Your task to perform on an android device: uninstall "Google Duo" Image 0: 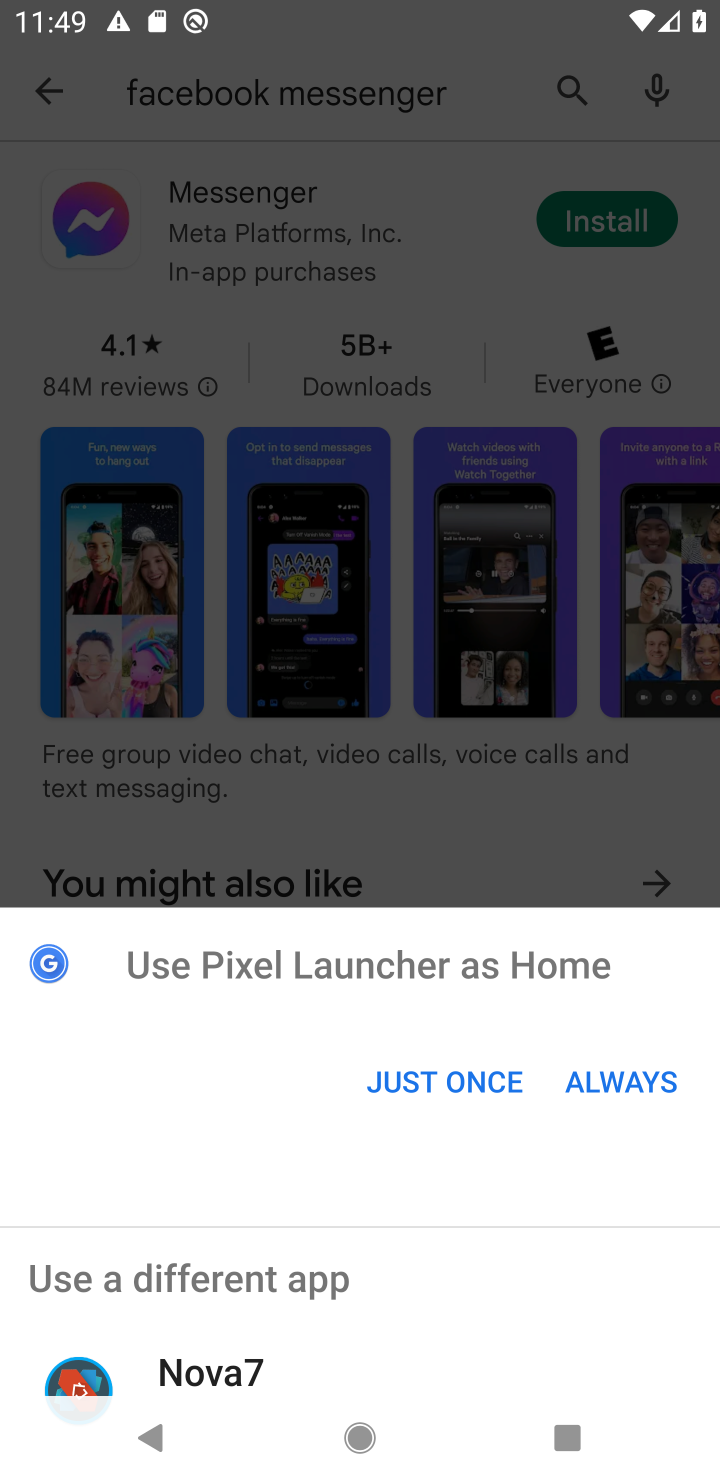
Step 0: press home button
Your task to perform on an android device: uninstall "Google Duo" Image 1: 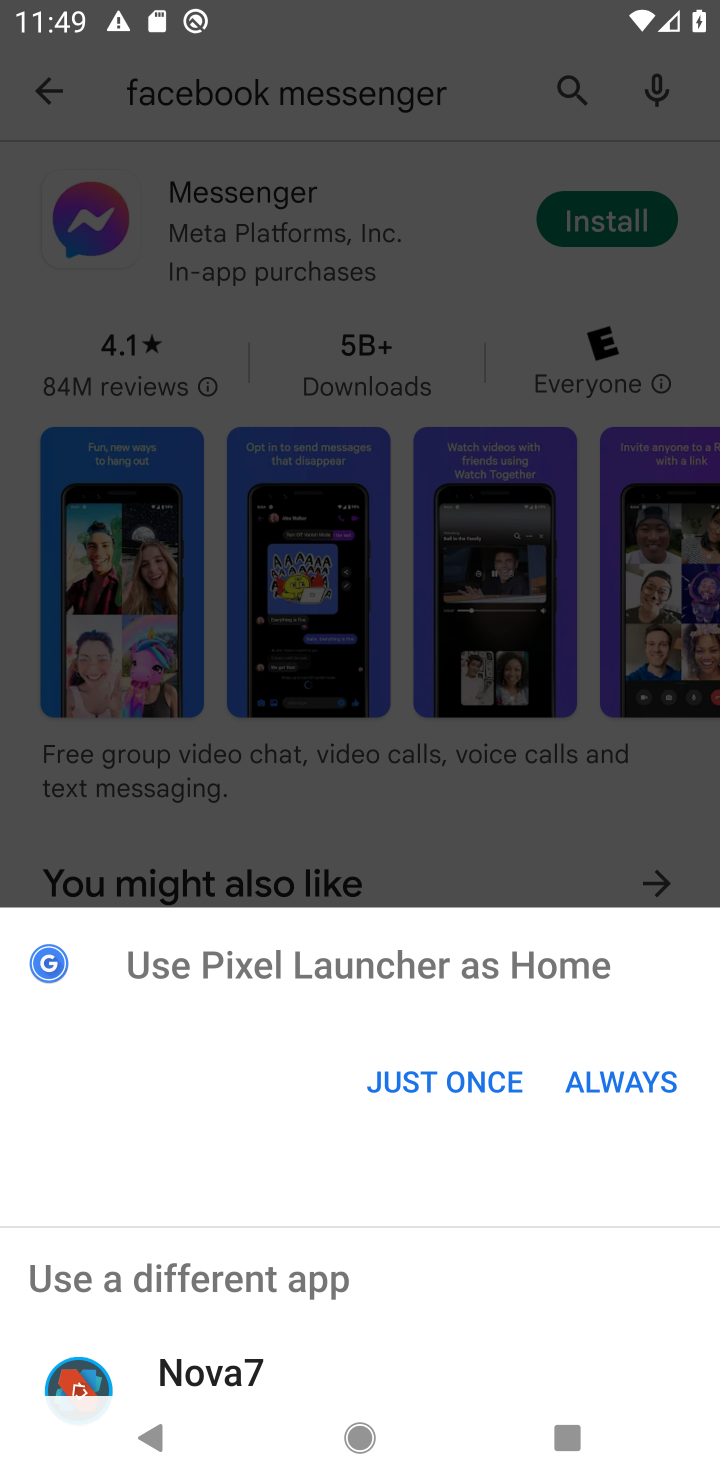
Step 1: press back button
Your task to perform on an android device: uninstall "Google Duo" Image 2: 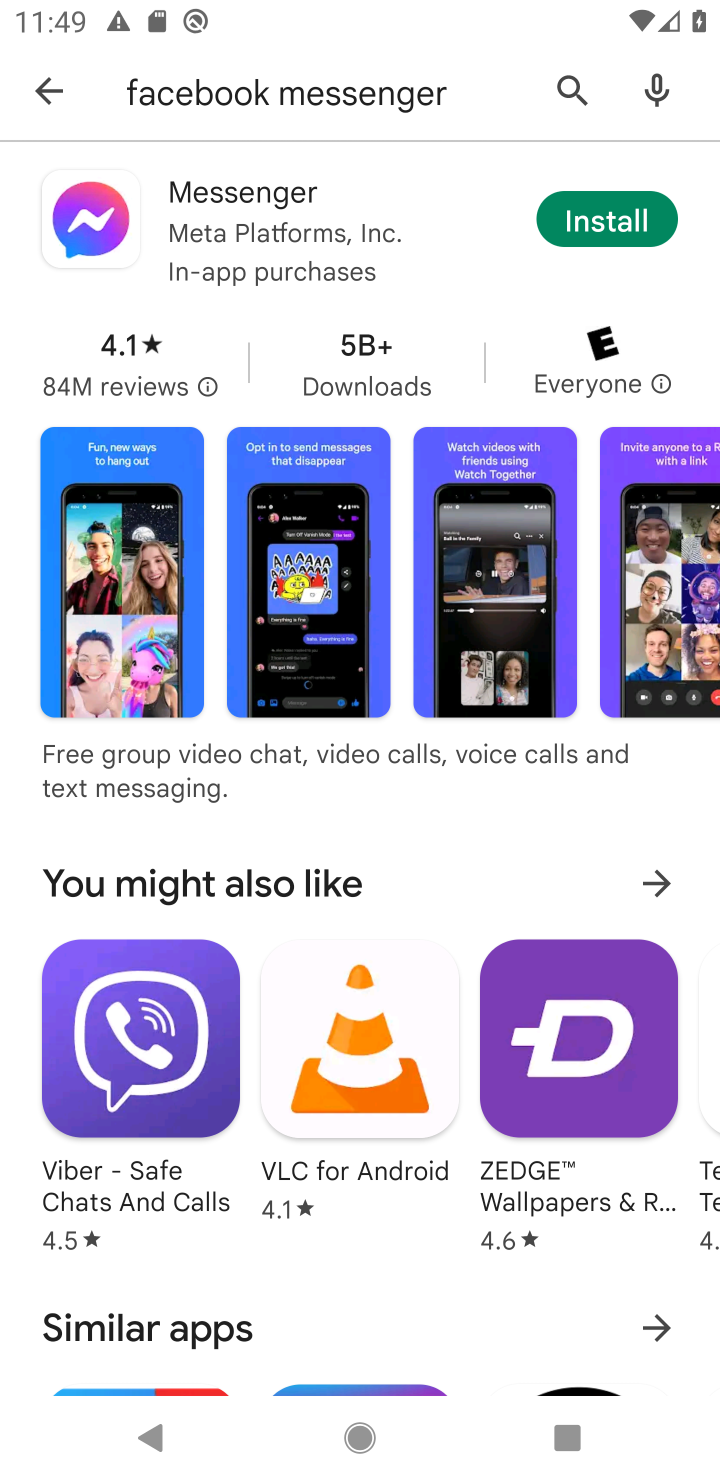
Step 2: click (32, 92)
Your task to perform on an android device: uninstall "Google Duo" Image 3: 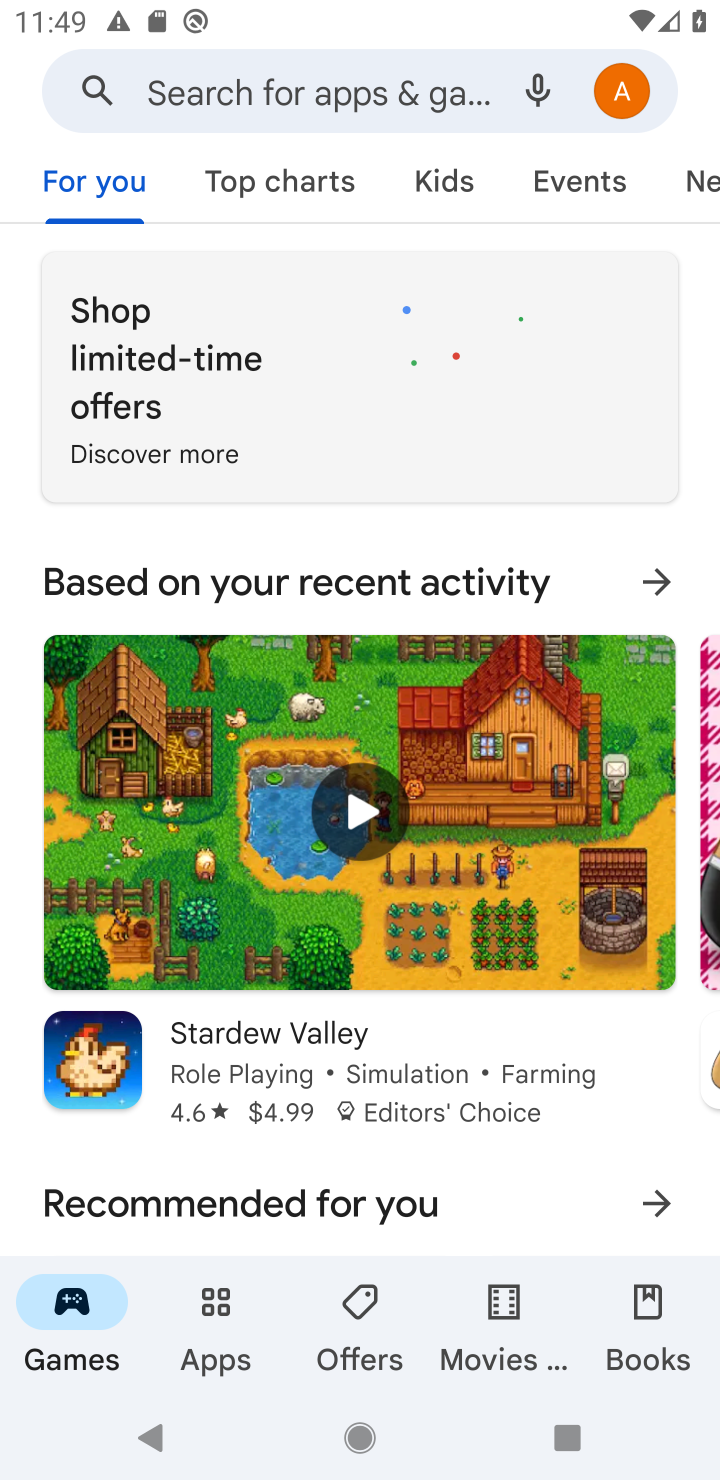
Step 3: click (291, 109)
Your task to perform on an android device: uninstall "Google Duo" Image 4: 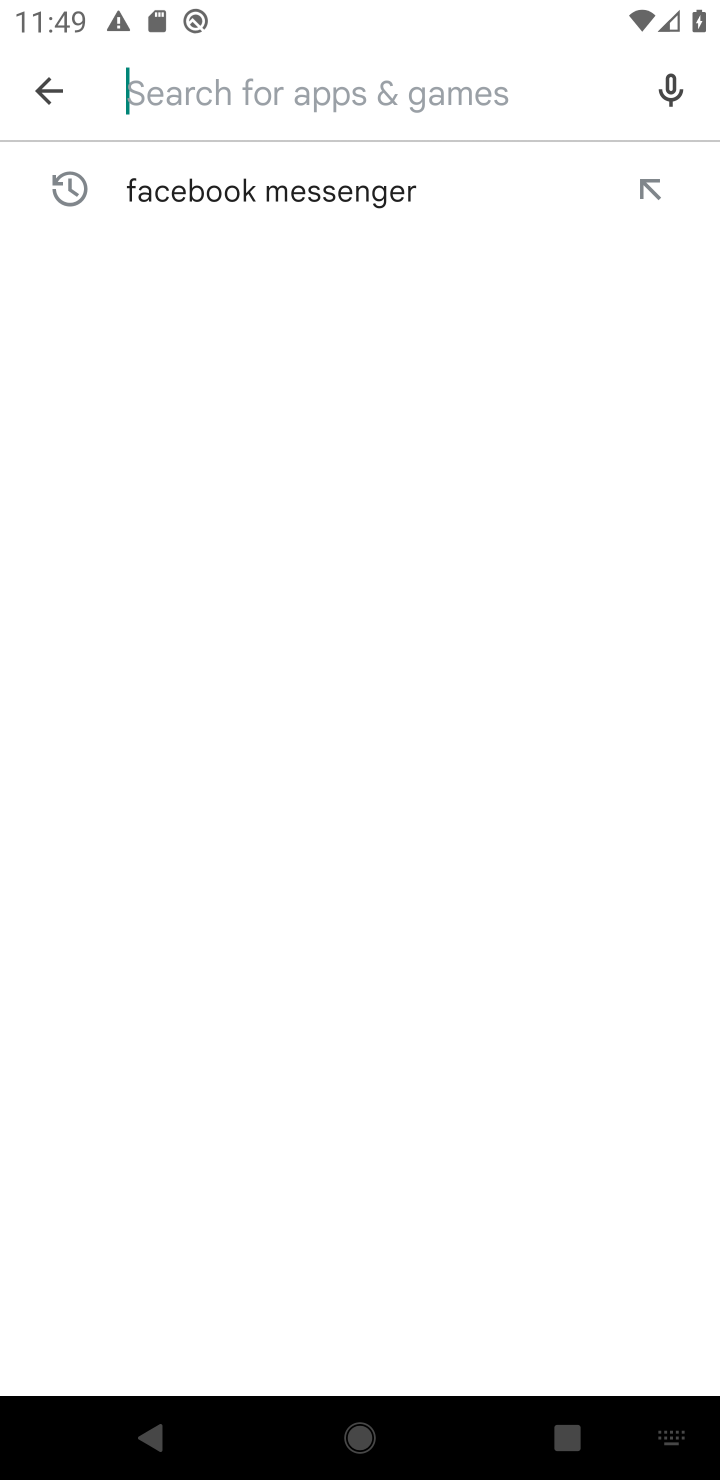
Step 4: type "Google Duo"
Your task to perform on an android device: uninstall "Google Duo" Image 5: 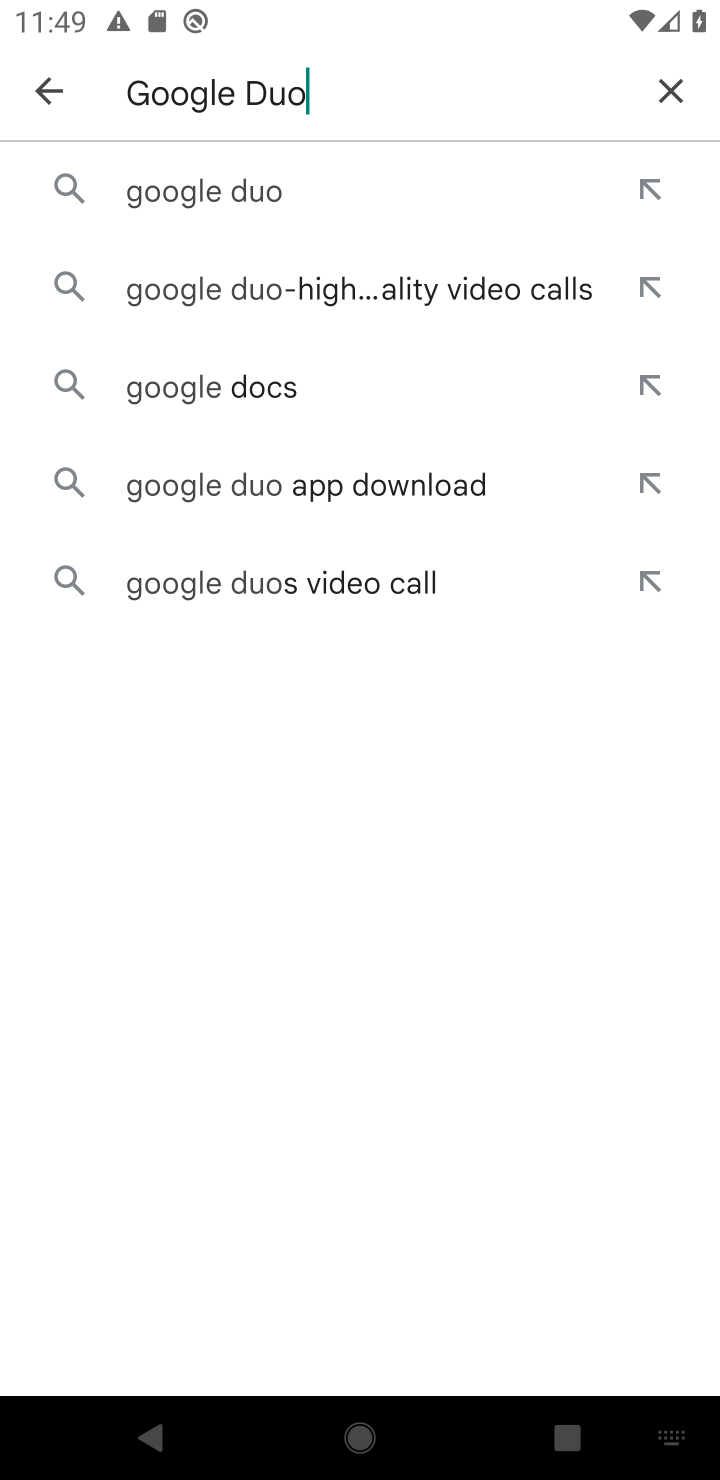
Step 5: click (268, 182)
Your task to perform on an android device: uninstall "Google Duo" Image 6: 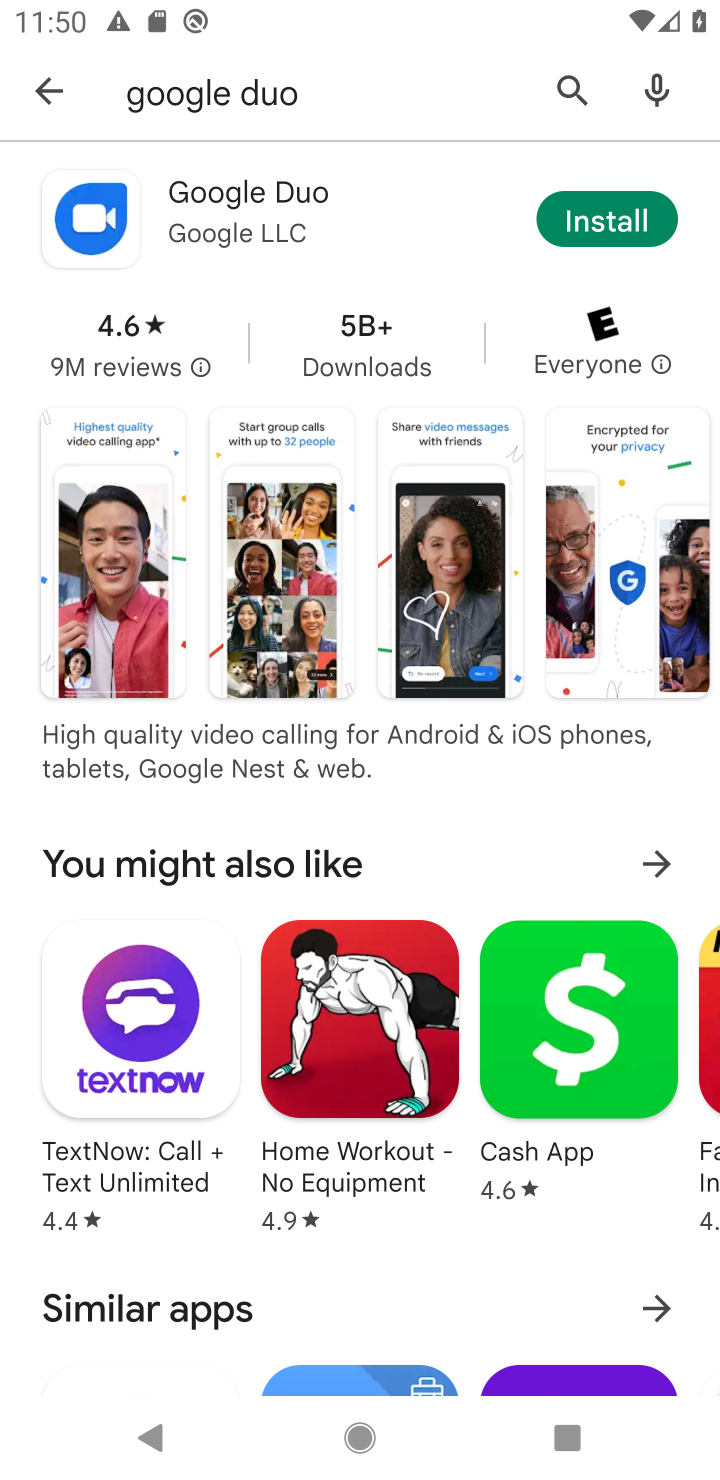
Step 6: click (284, 217)
Your task to perform on an android device: uninstall "Google Duo" Image 7: 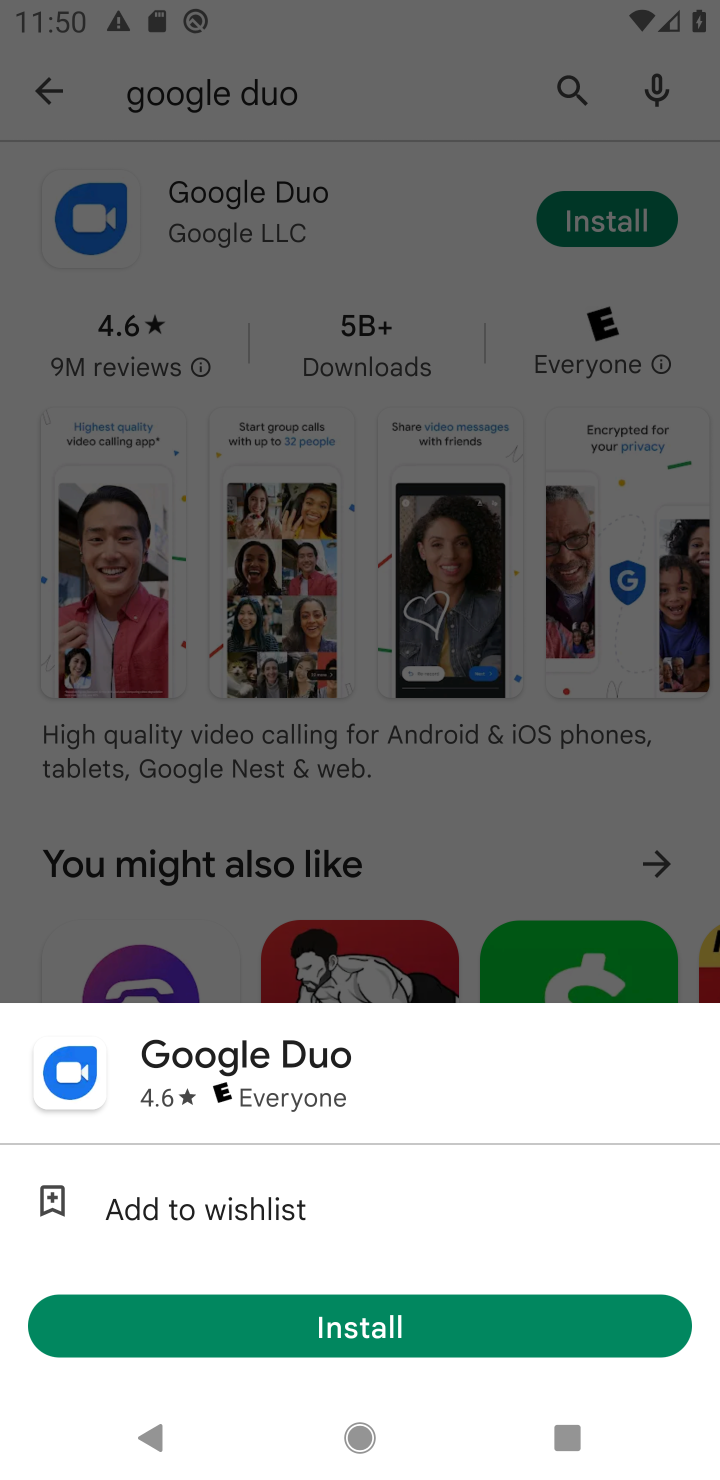
Step 7: task complete